Your task to perform on an android device: all mails in gmail Image 0: 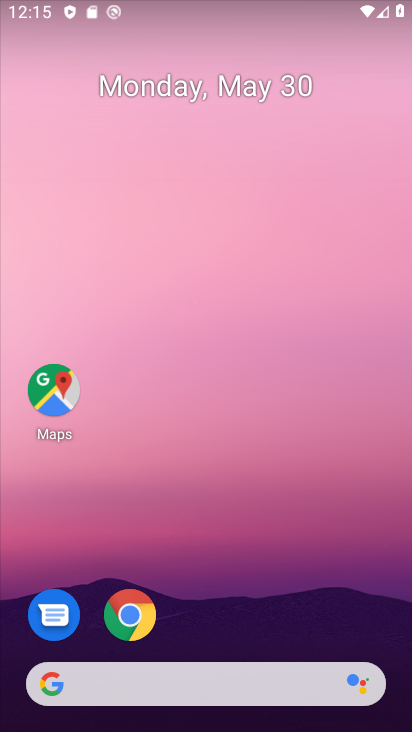
Step 0: drag from (249, 277) to (246, 143)
Your task to perform on an android device: all mails in gmail Image 1: 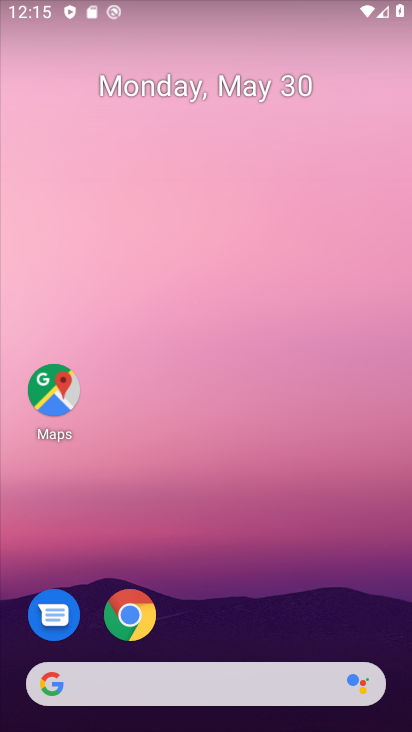
Step 1: drag from (214, 589) to (279, 63)
Your task to perform on an android device: all mails in gmail Image 2: 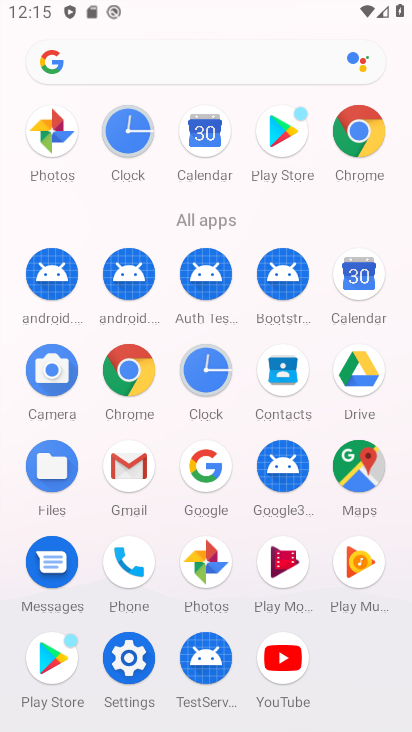
Step 2: click (130, 466)
Your task to perform on an android device: all mails in gmail Image 3: 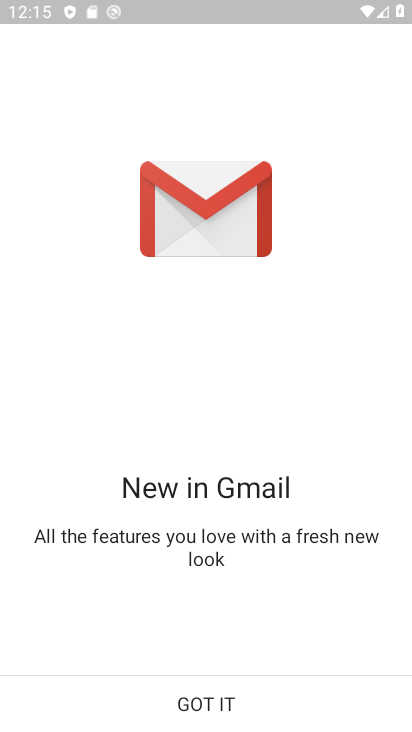
Step 3: click (219, 698)
Your task to perform on an android device: all mails in gmail Image 4: 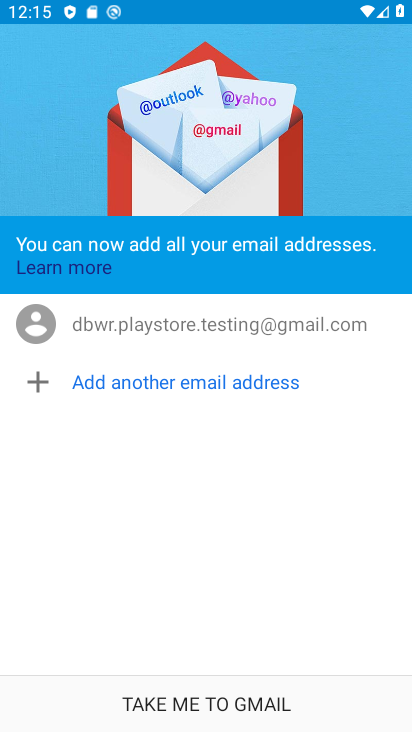
Step 4: click (193, 703)
Your task to perform on an android device: all mails in gmail Image 5: 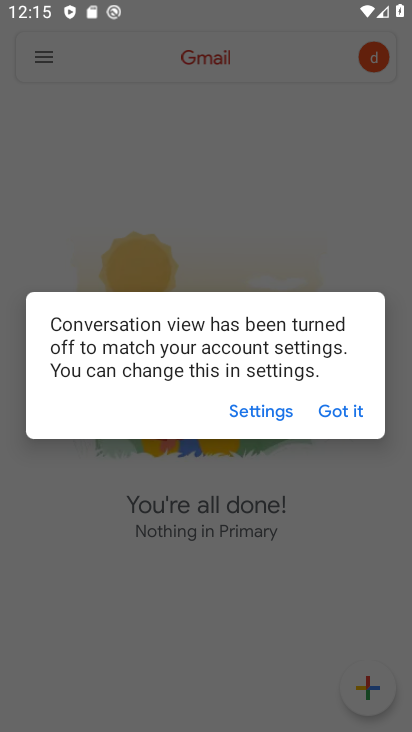
Step 5: click (351, 403)
Your task to perform on an android device: all mails in gmail Image 6: 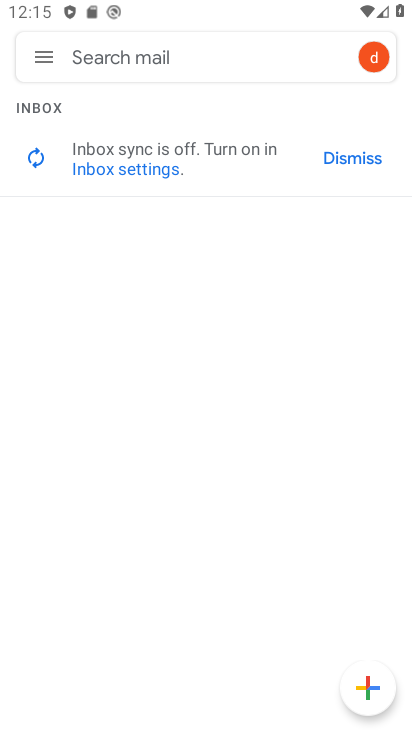
Step 6: click (38, 55)
Your task to perform on an android device: all mails in gmail Image 7: 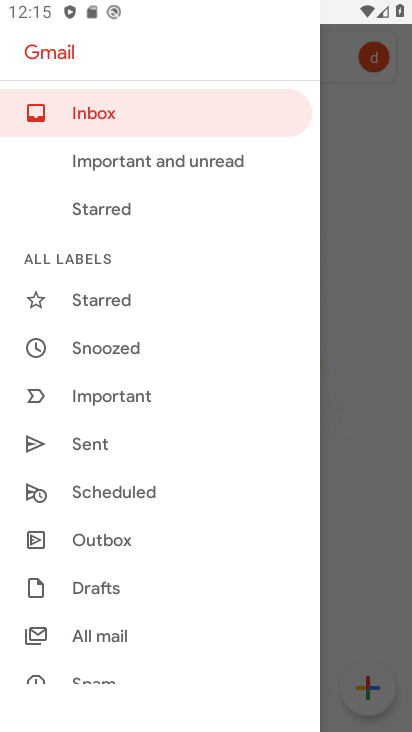
Step 7: click (118, 635)
Your task to perform on an android device: all mails in gmail Image 8: 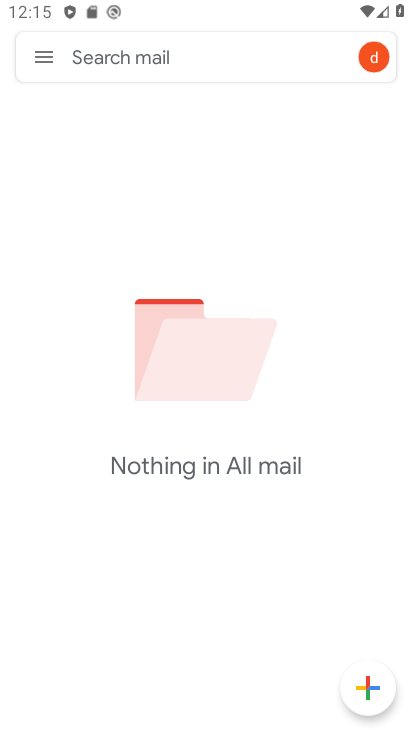
Step 8: task complete